Your task to perform on an android device: Open sound settings Image 0: 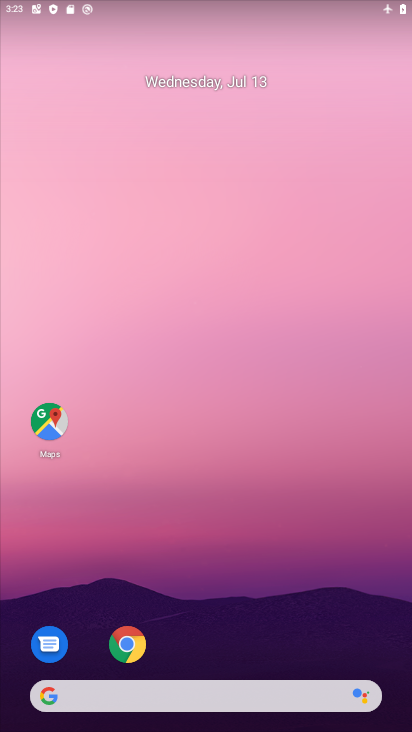
Step 0: drag from (262, 587) to (197, 106)
Your task to perform on an android device: Open sound settings Image 1: 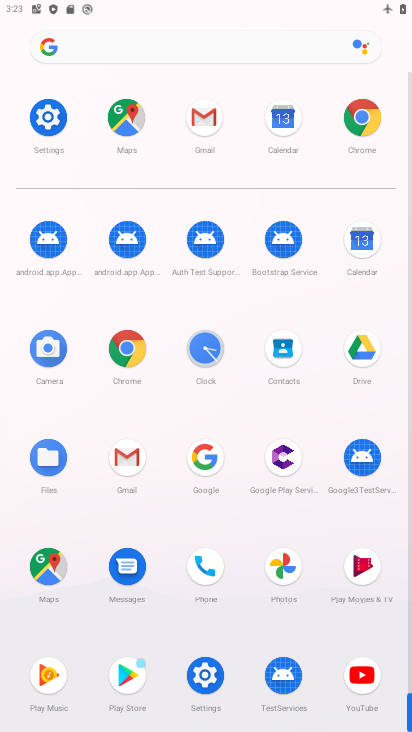
Step 1: click (56, 107)
Your task to perform on an android device: Open sound settings Image 2: 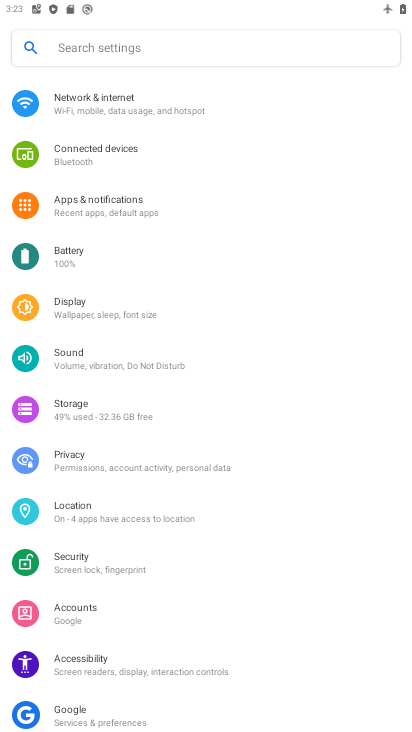
Step 2: click (84, 365)
Your task to perform on an android device: Open sound settings Image 3: 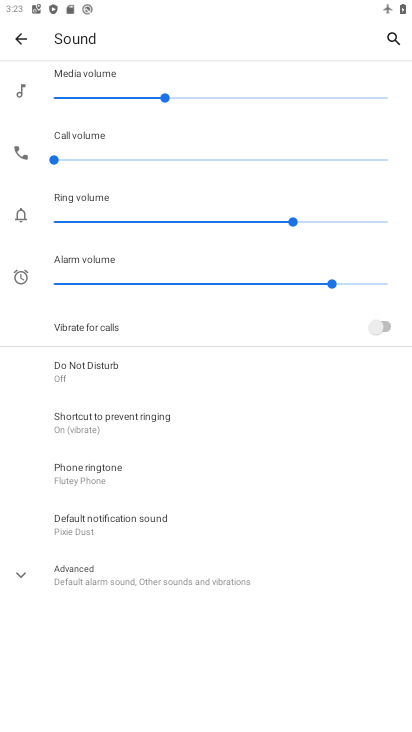
Step 3: task complete